Your task to perform on an android device: Open calendar and show me the first week of next month Image 0: 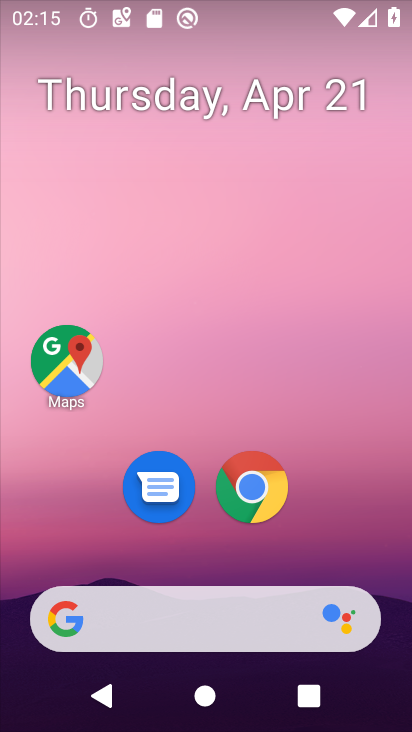
Step 0: drag from (231, 479) to (372, 106)
Your task to perform on an android device: Open calendar and show me the first week of next month Image 1: 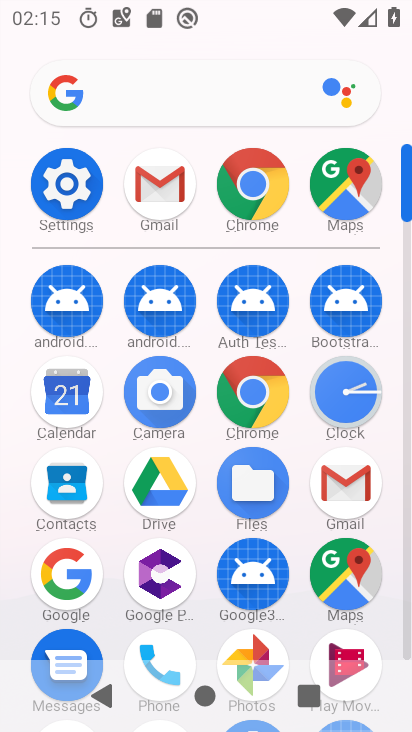
Step 1: click (85, 392)
Your task to perform on an android device: Open calendar and show me the first week of next month Image 2: 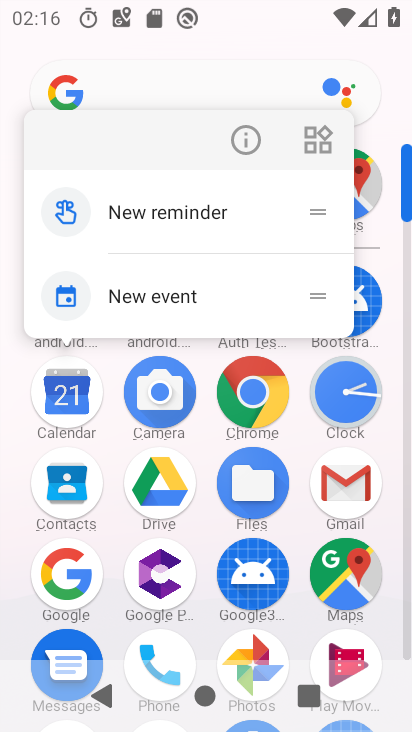
Step 2: click (242, 138)
Your task to perform on an android device: Open calendar and show me the first week of next month Image 3: 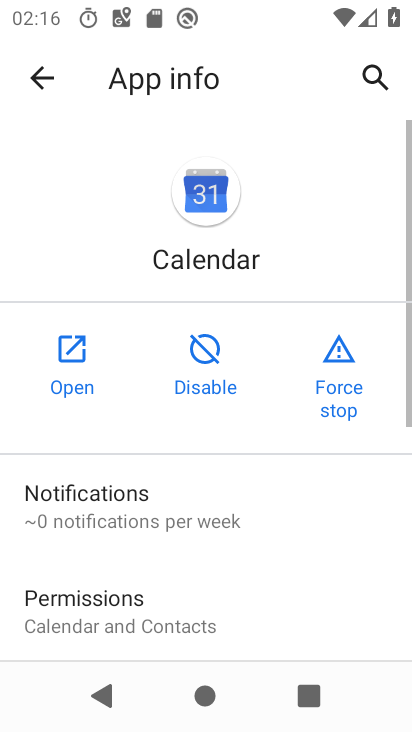
Step 3: click (66, 365)
Your task to perform on an android device: Open calendar and show me the first week of next month Image 4: 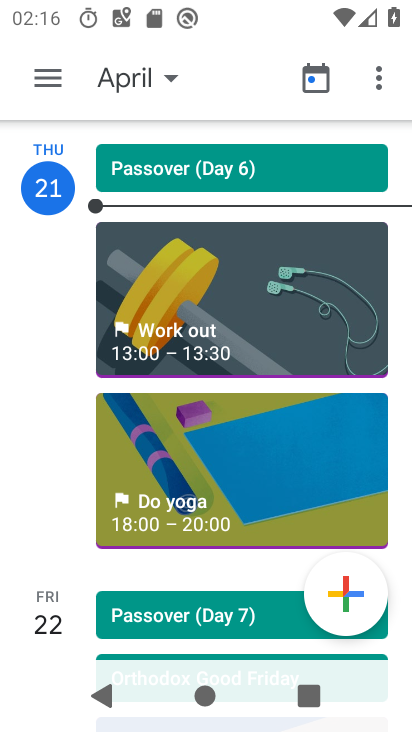
Step 4: click (118, 77)
Your task to perform on an android device: Open calendar and show me the first week of next month Image 5: 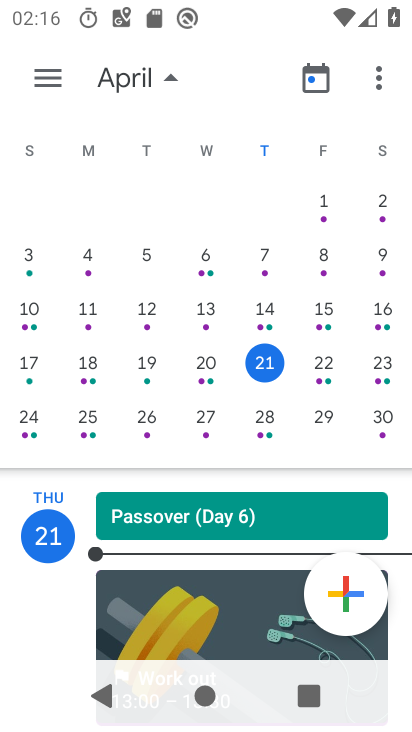
Step 5: drag from (359, 305) to (11, 311)
Your task to perform on an android device: Open calendar and show me the first week of next month Image 6: 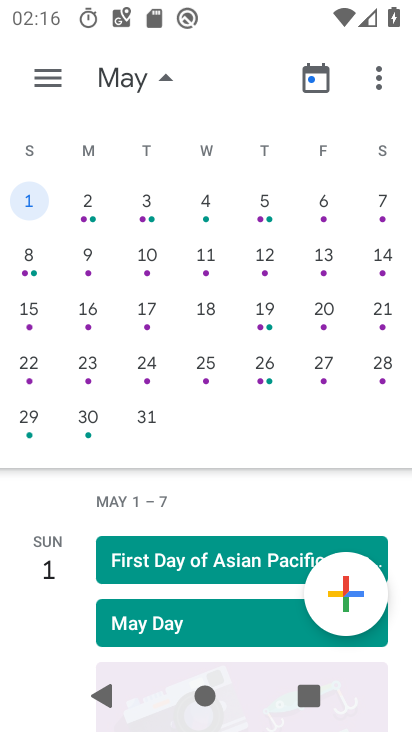
Step 6: click (146, 208)
Your task to perform on an android device: Open calendar and show me the first week of next month Image 7: 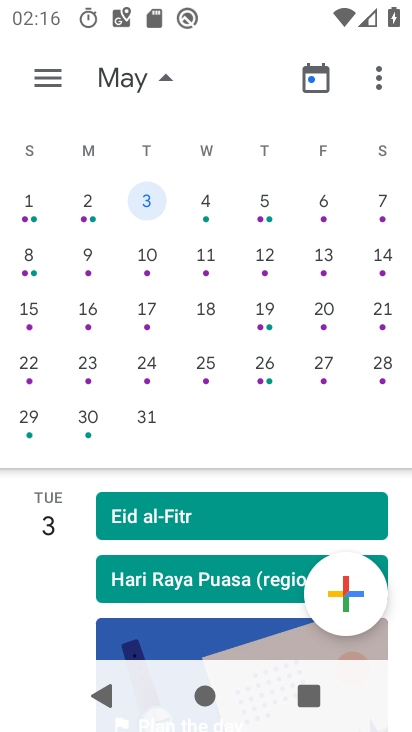
Step 7: task complete